Your task to perform on an android device: Go to calendar. Show me events next week Image 0: 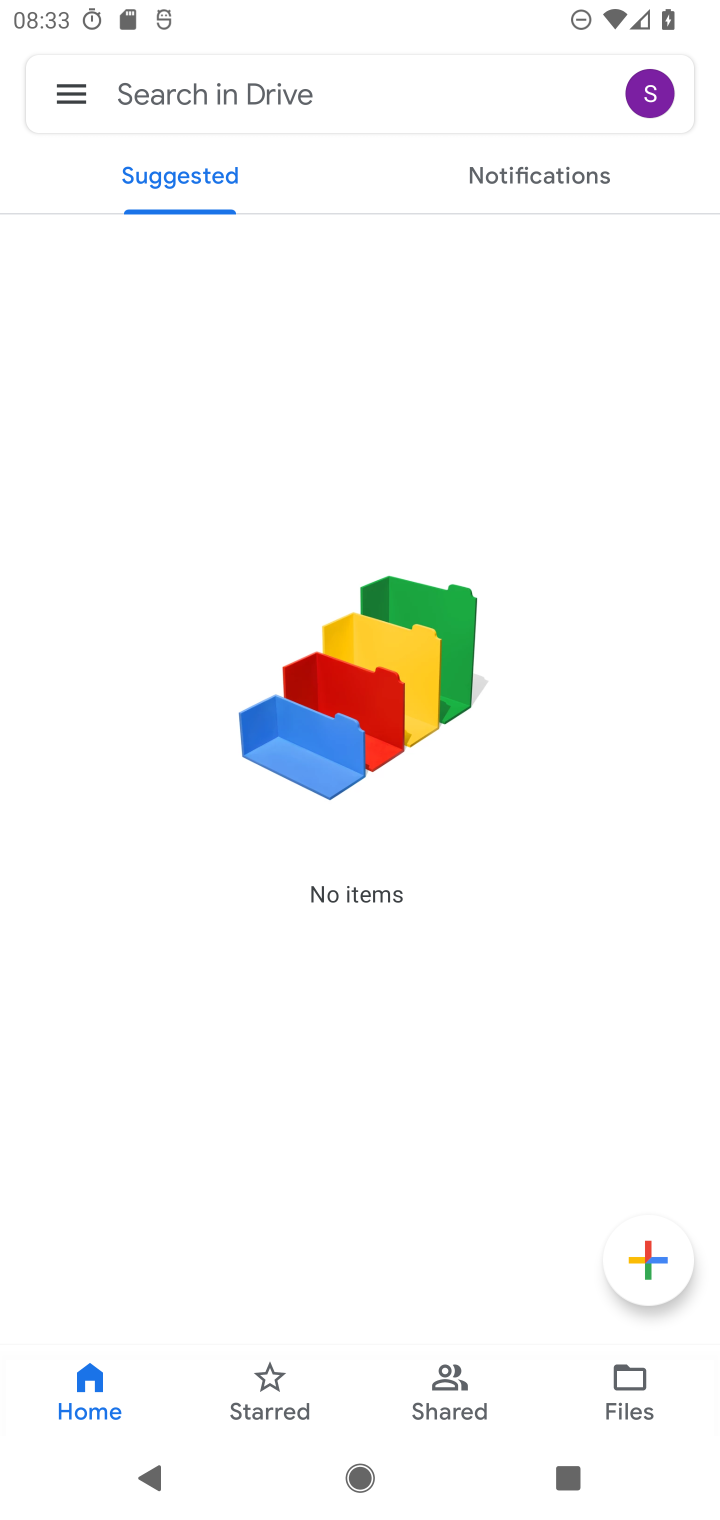
Step 0: press home button
Your task to perform on an android device: Go to calendar. Show me events next week Image 1: 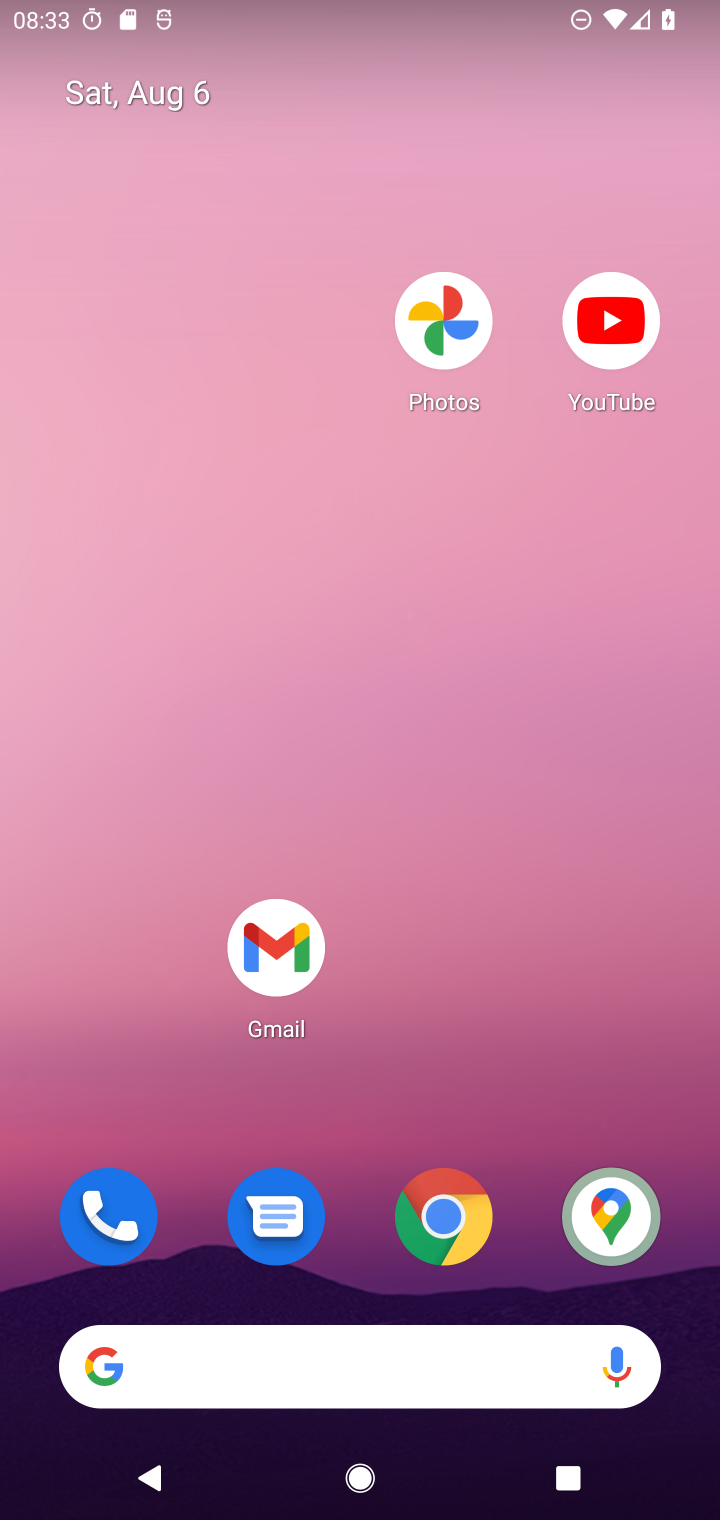
Step 1: drag from (483, 1049) to (608, 23)
Your task to perform on an android device: Go to calendar. Show me events next week Image 2: 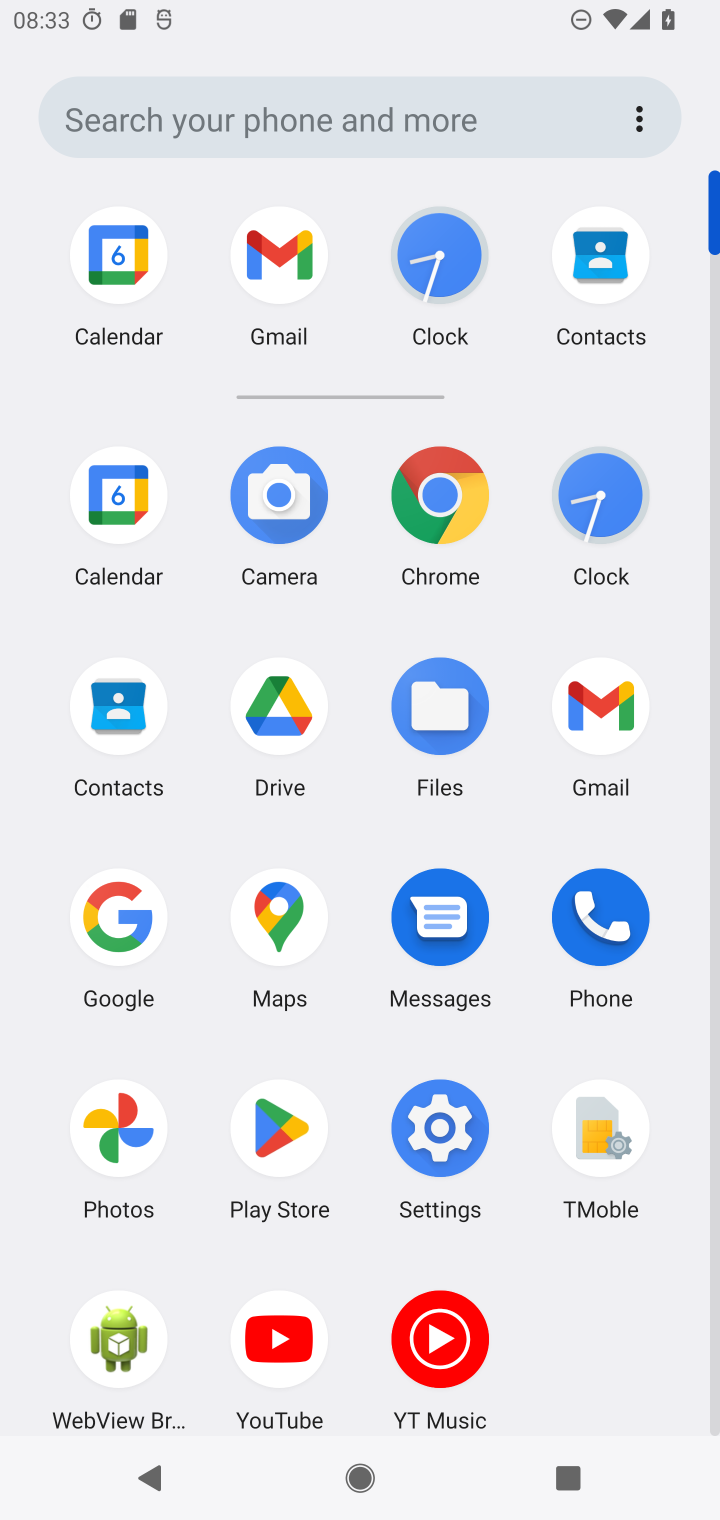
Step 2: click (127, 487)
Your task to perform on an android device: Go to calendar. Show me events next week Image 3: 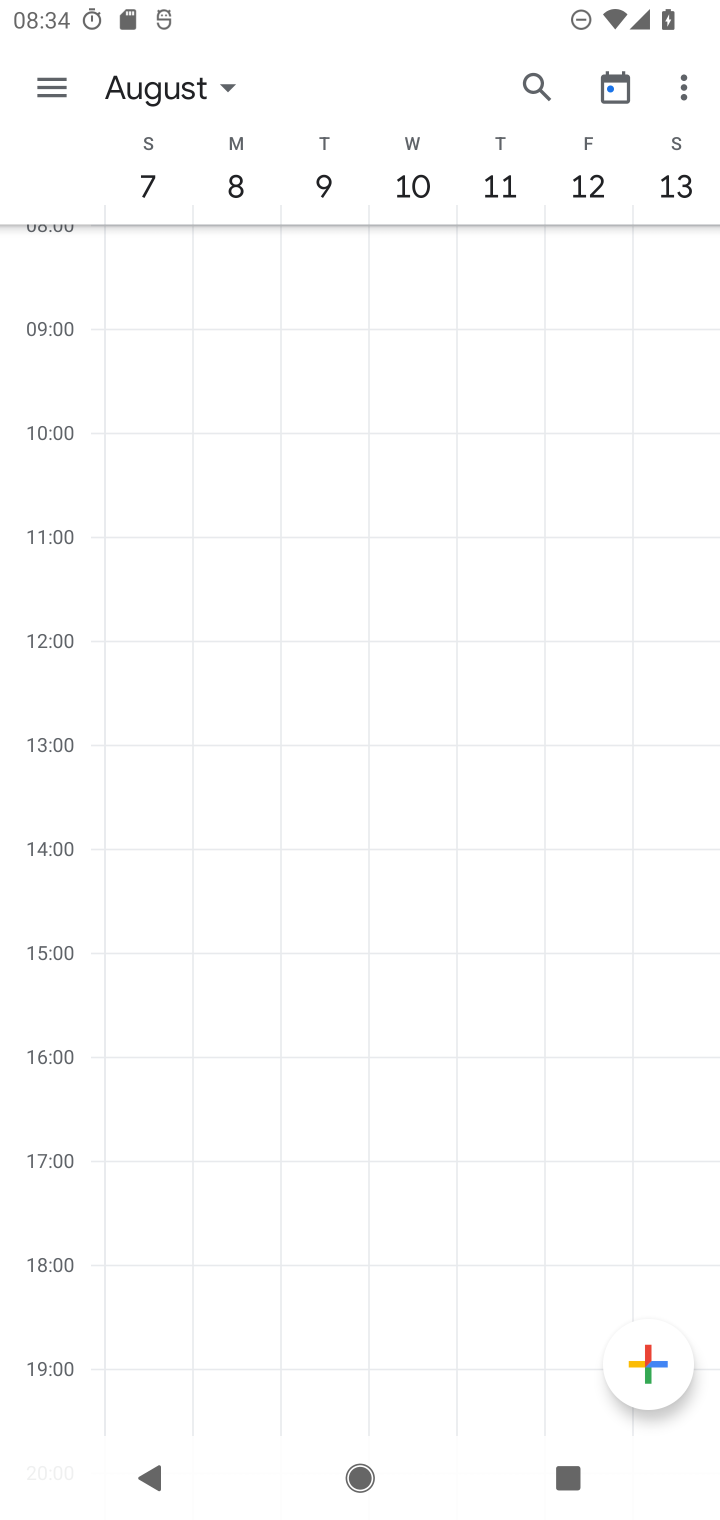
Step 3: click (186, 89)
Your task to perform on an android device: Go to calendar. Show me events next week Image 4: 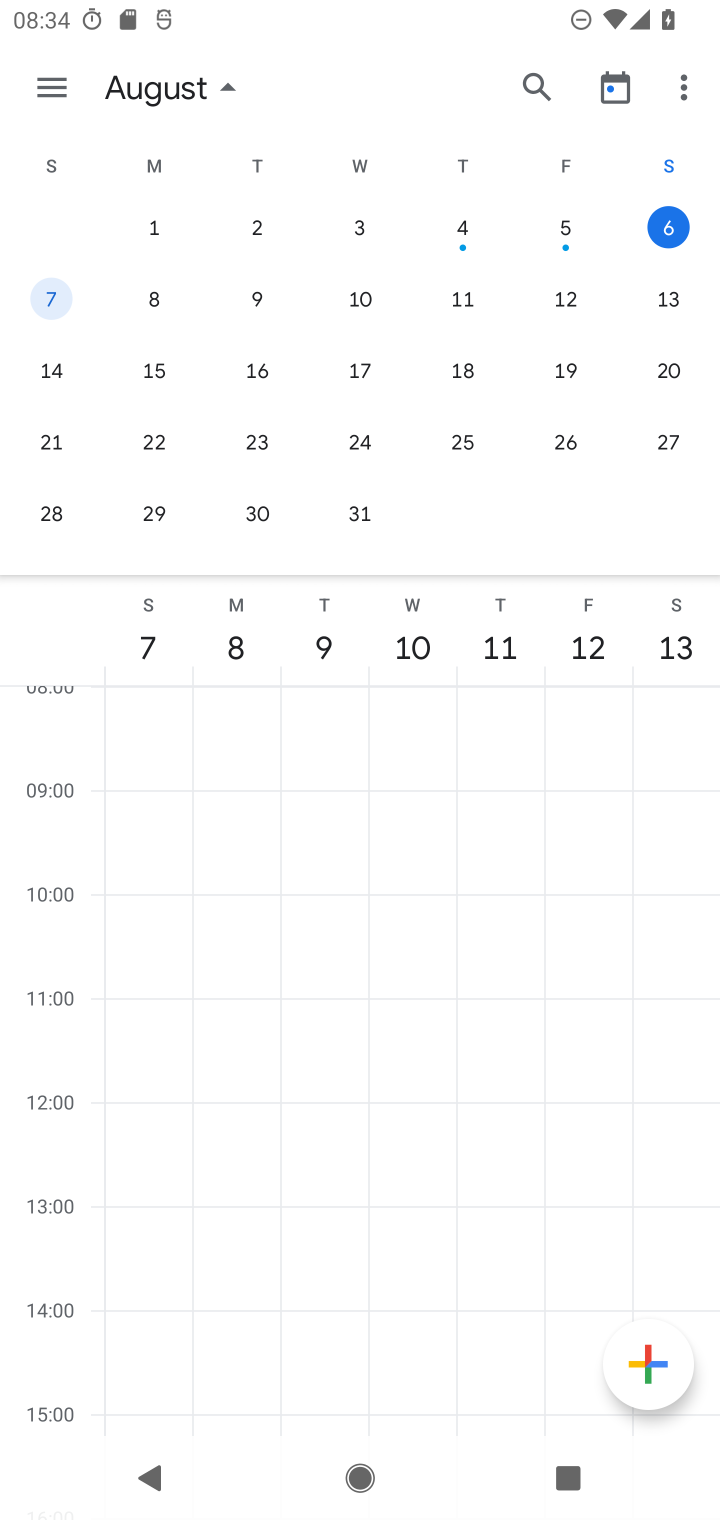
Step 4: click (489, 171)
Your task to perform on an android device: Go to calendar. Show me events next week Image 5: 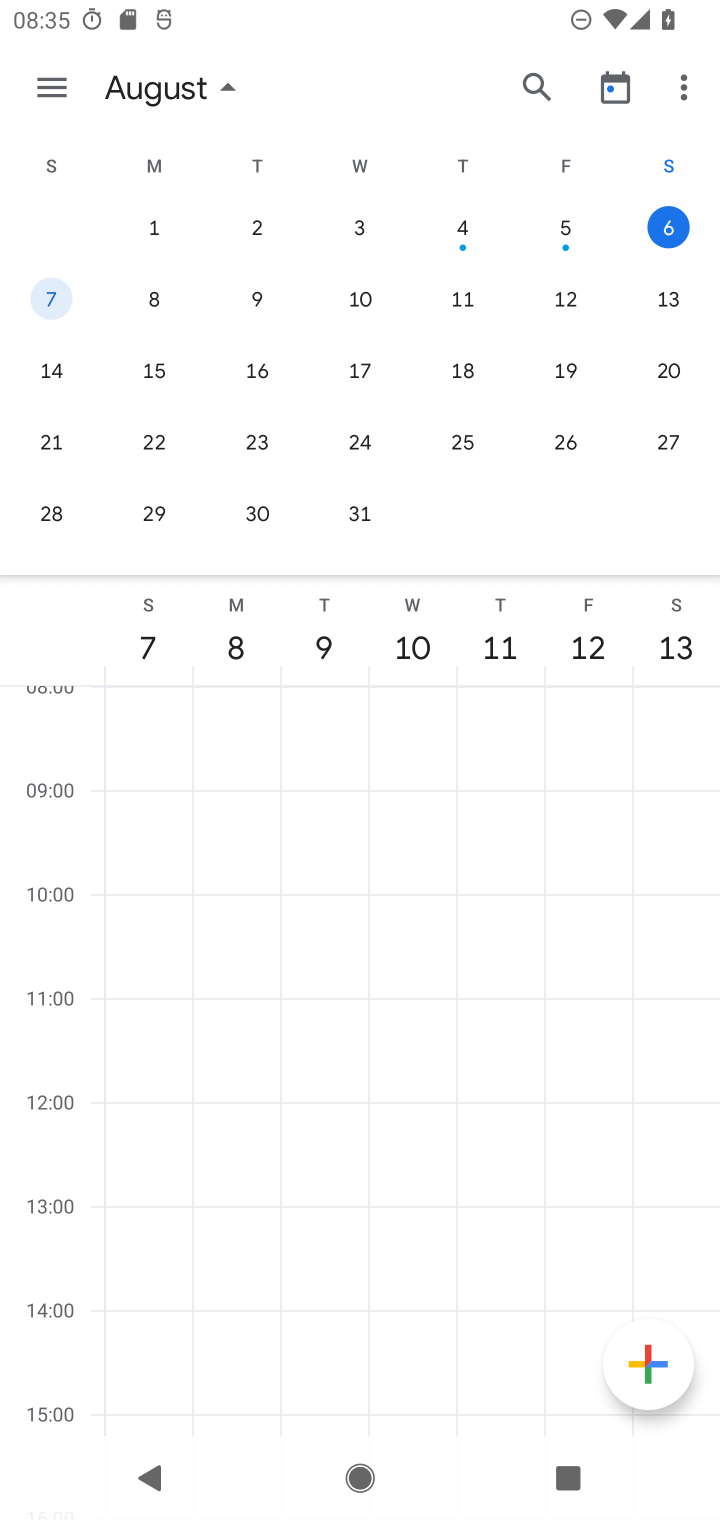
Step 5: task complete